Your task to perform on an android device: Open ESPN.com Image 0: 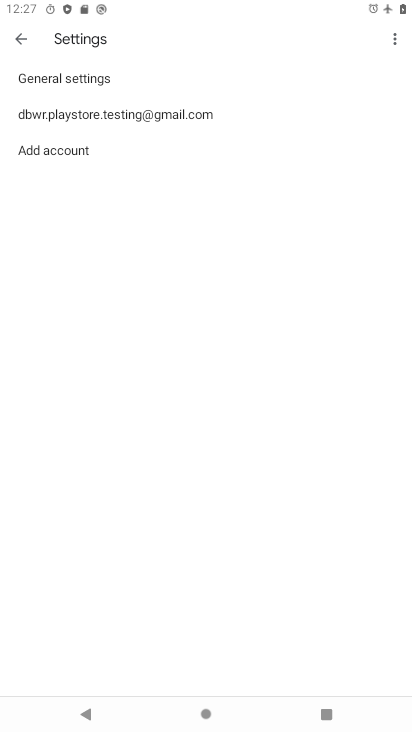
Step 0: press home button
Your task to perform on an android device: Open ESPN.com Image 1: 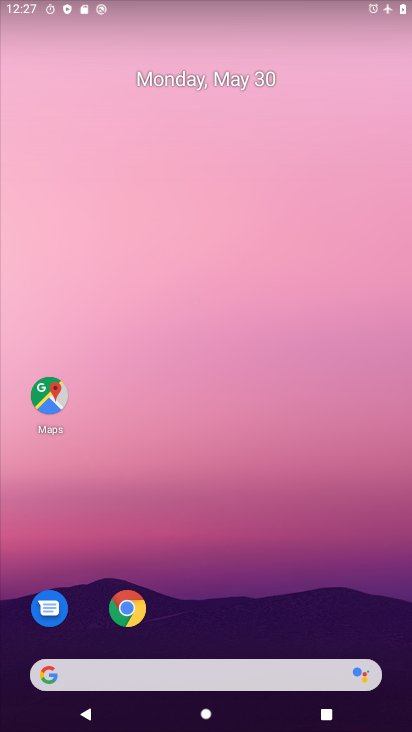
Step 1: click (145, 608)
Your task to perform on an android device: Open ESPN.com Image 2: 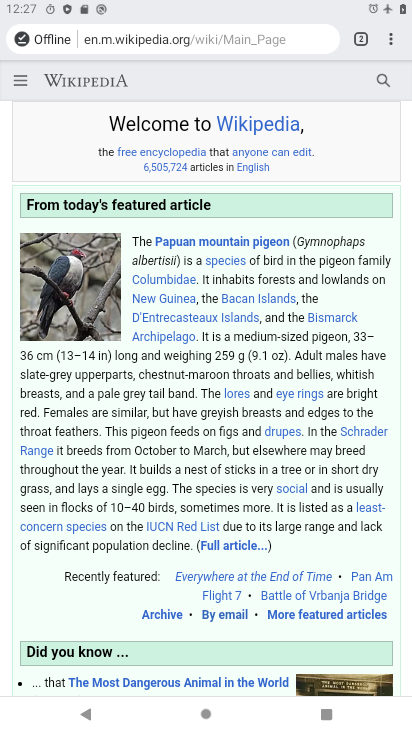
Step 2: click (349, 36)
Your task to perform on an android device: Open ESPN.com Image 3: 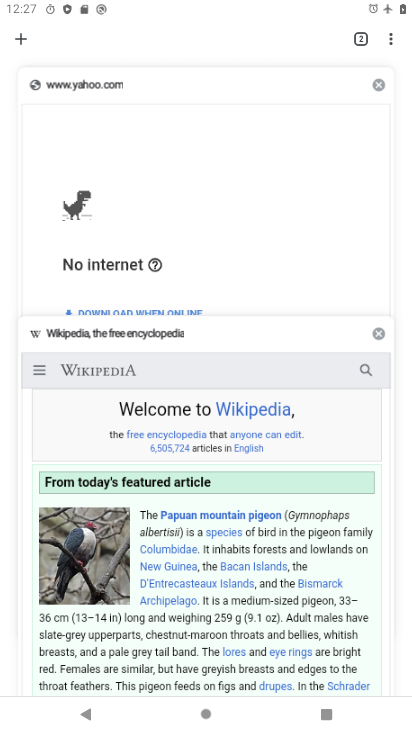
Step 3: click (24, 44)
Your task to perform on an android device: Open ESPN.com Image 4: 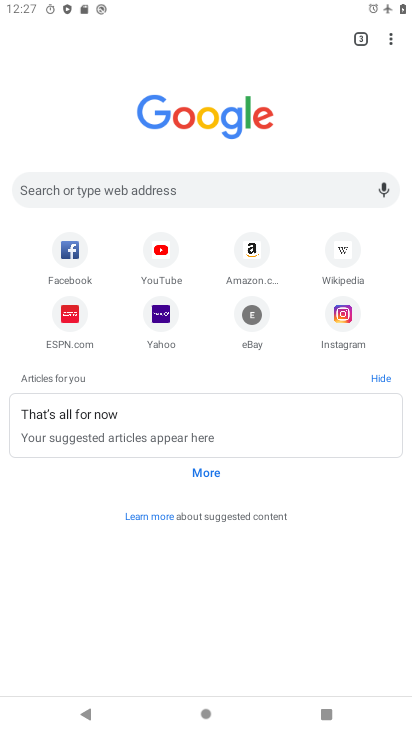
Step 4: click (64, 323)
Your task to perform on an android device: Open ESPN.com Image 5: 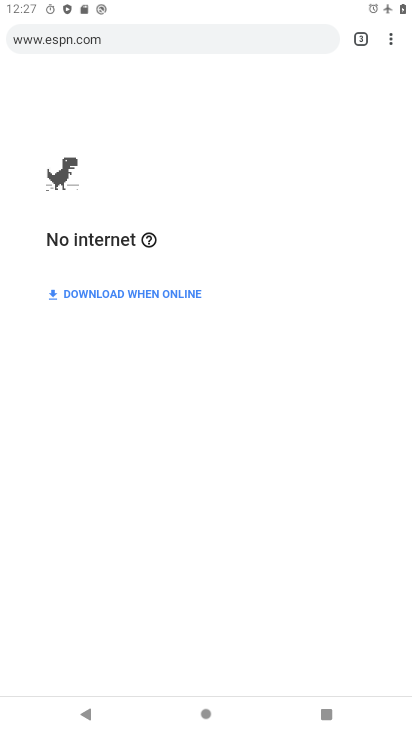
Step 5: task complete